Your task to perform on an android device: Open Youtube and go to the subscriptions tab Image 0: 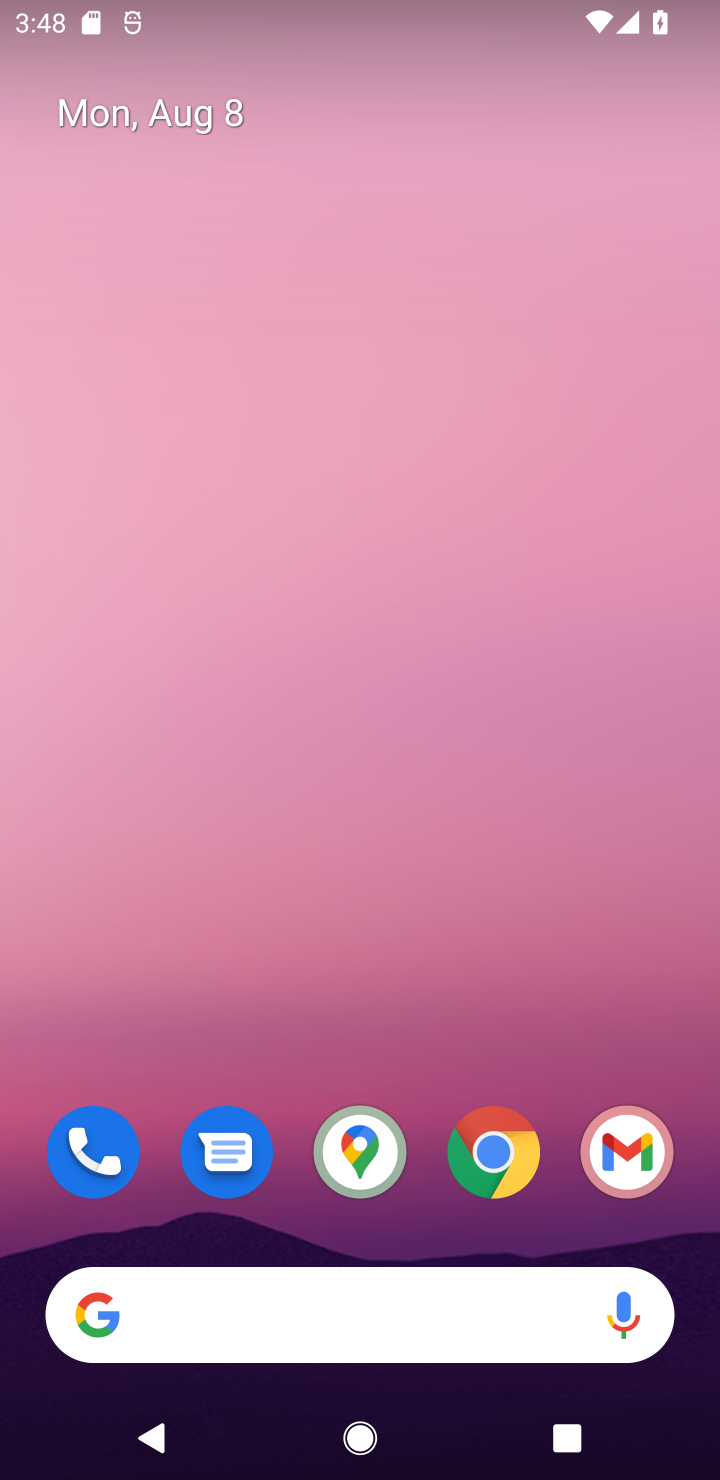
Step 0: drag from (378, 1177) to (670, 20)
Your task to perform on an android device: Open Youtube and go to the subscriptions tab Image 1: 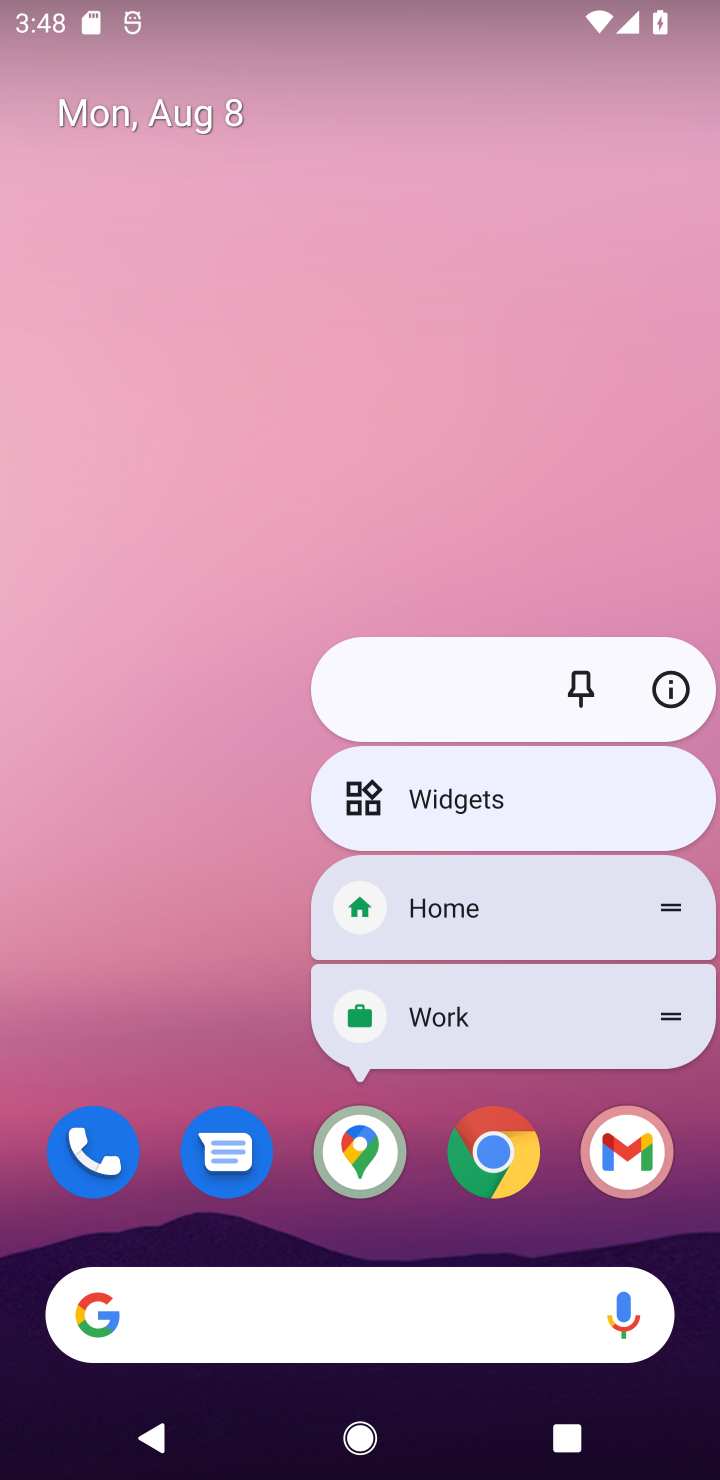
Step 1: click (209, 747)
Your task to perform on an android device: Open Youtube and go to the subscriptions tab Image 2: 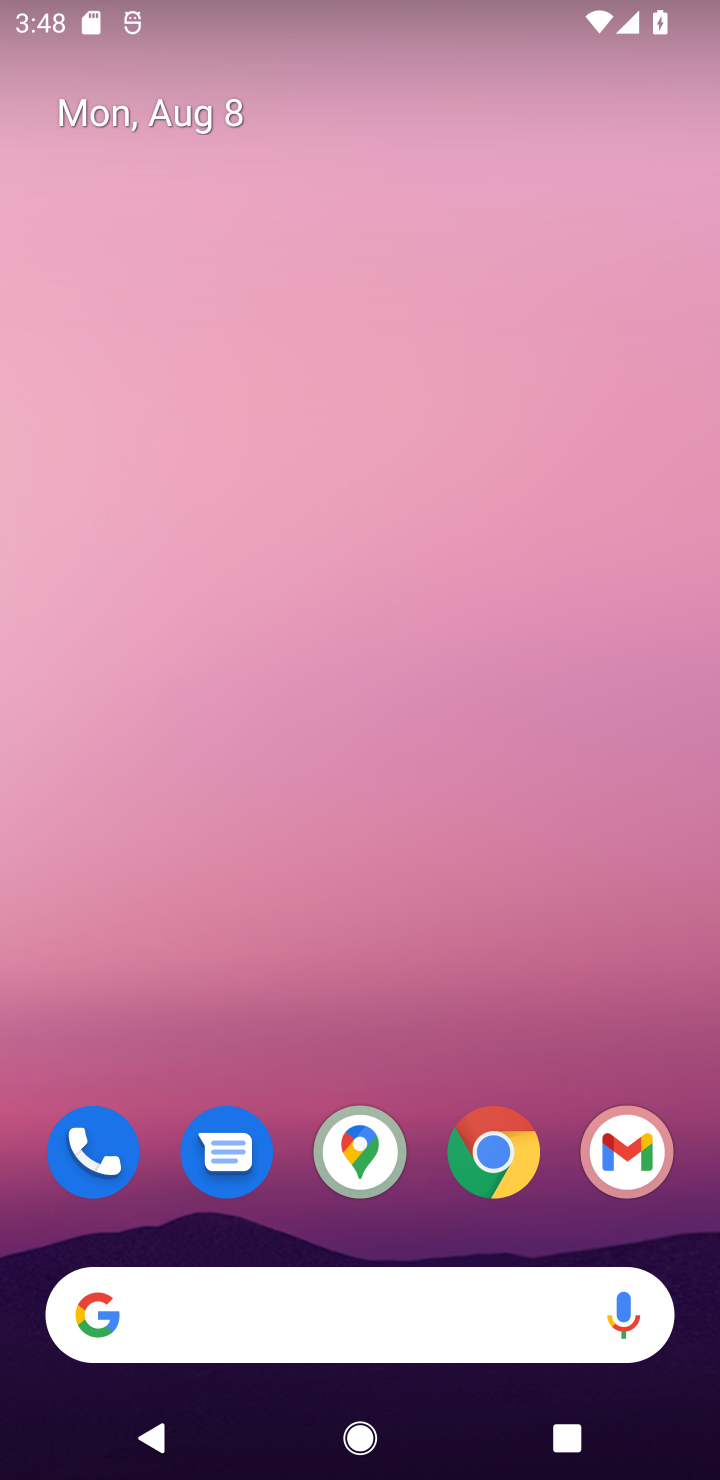
Step 2: drag from (205, 1119) to (391, 95)
Your task to perform on an android device: Open Youtube and go to the subscriptions tab Image 3: 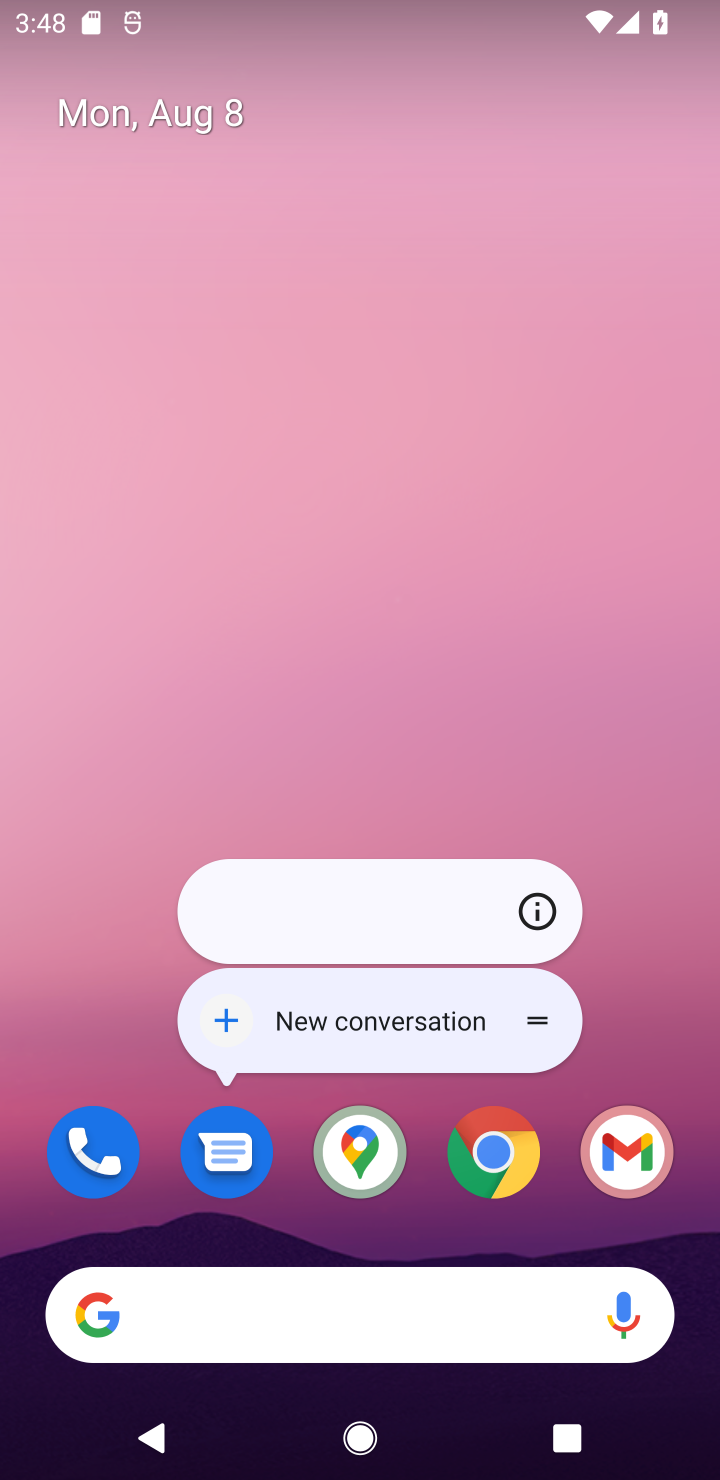
Step 3: drag from (127, 766) to (257, 32)
Your task to perform on an android device: Open Youtube and go to the subscriptions tab Image 4: 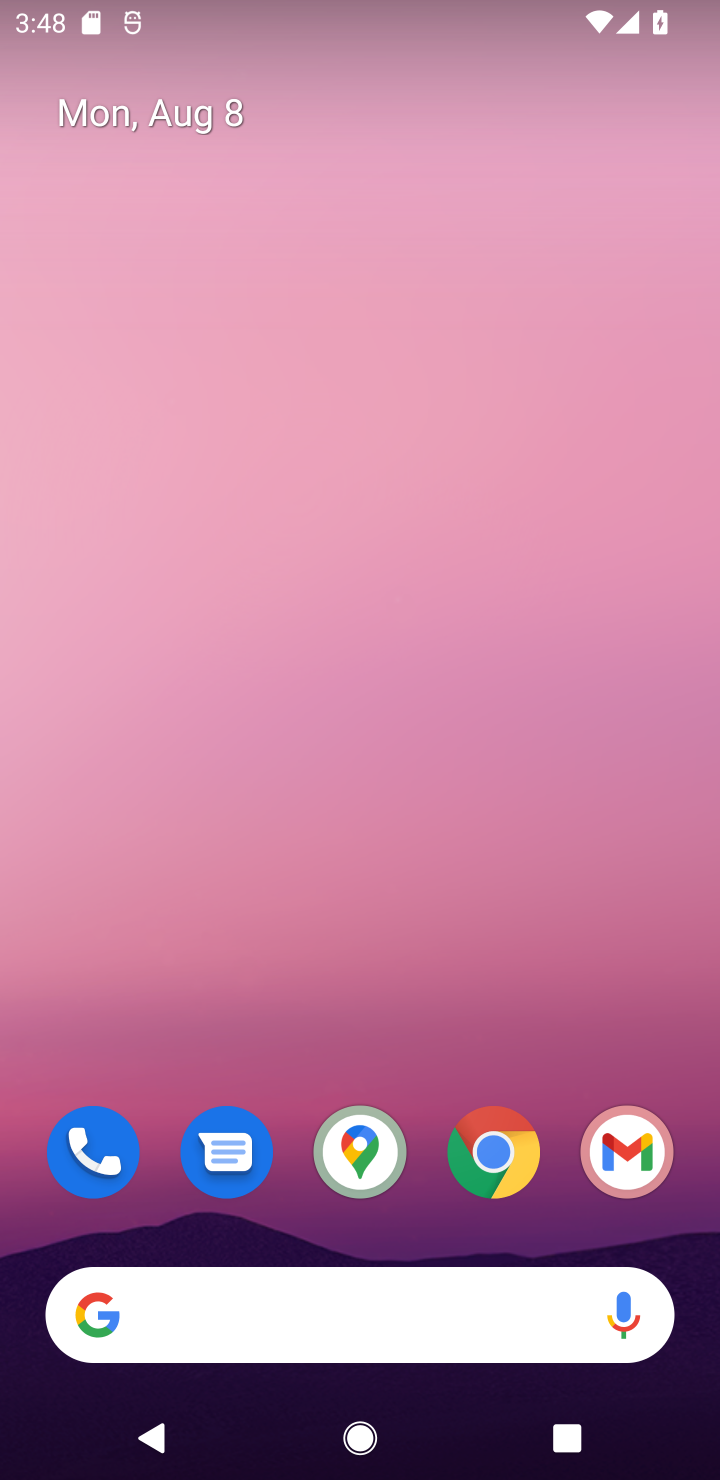
Step 4: drag from (412, 1196) to (381, 201)
Your task to perform on an android device: Open Youtube and go to the subscriptions tab Image 5: 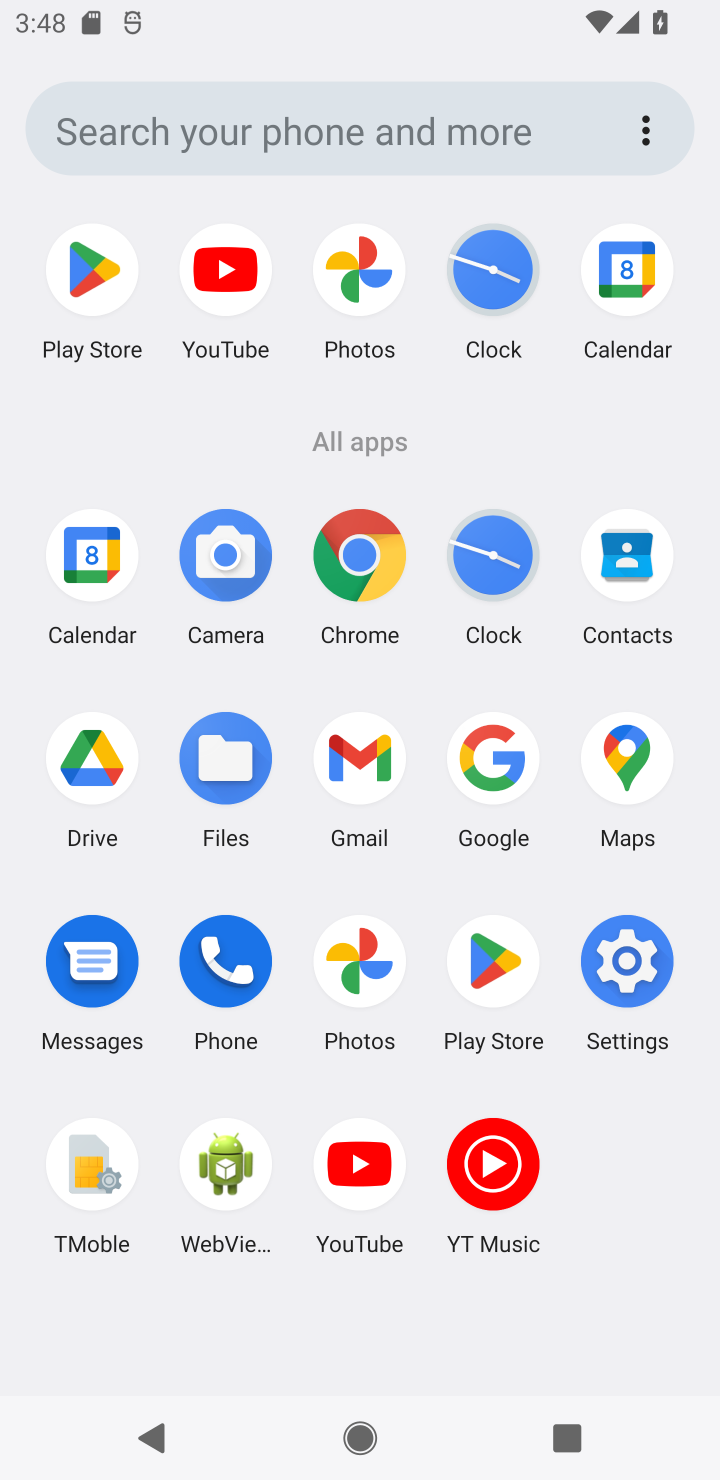
Step 5: click (353, 1182)
Your task to perform on an android device: Open Youtube and go to the subscriptions tab Image 6: 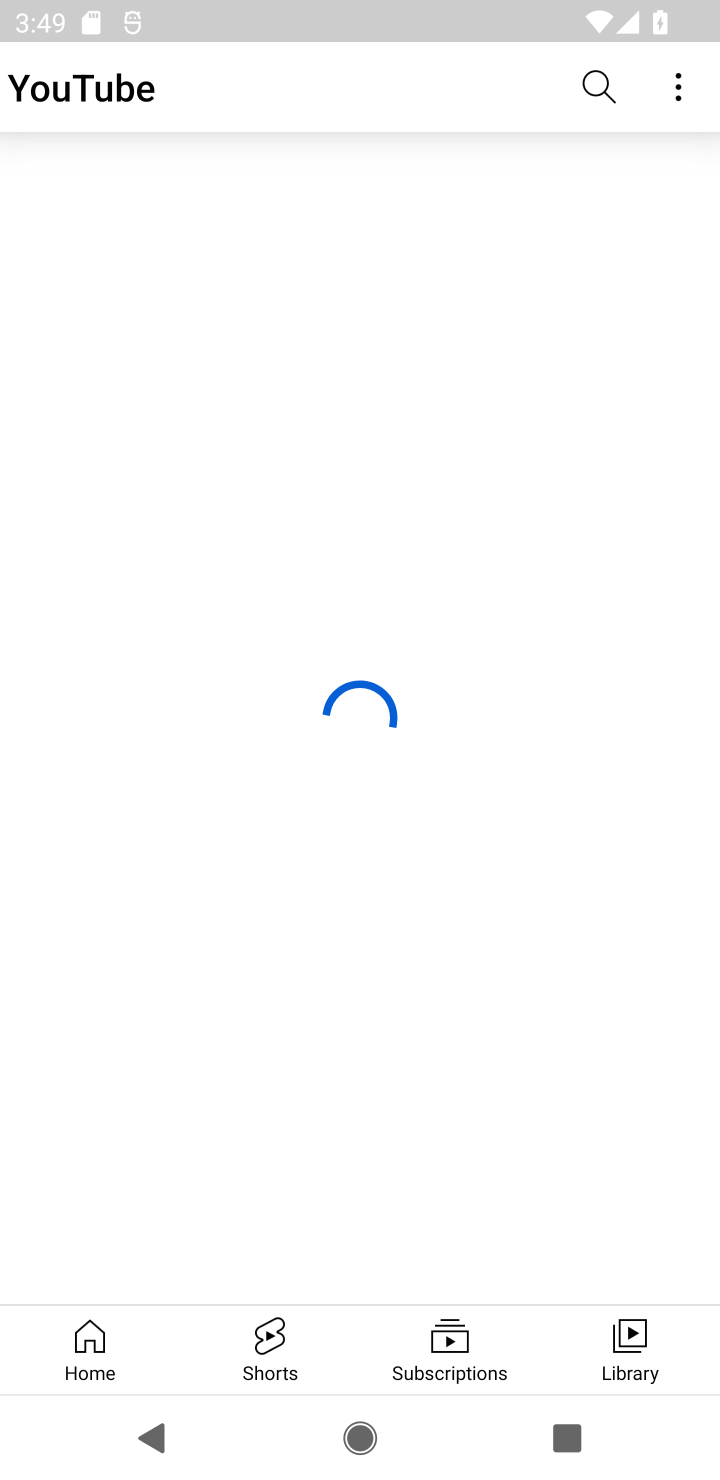
Step 6: click (452, 1352)
Your task to perform on an android device: Open Youtube and go to the subscriptions tab Image 7: 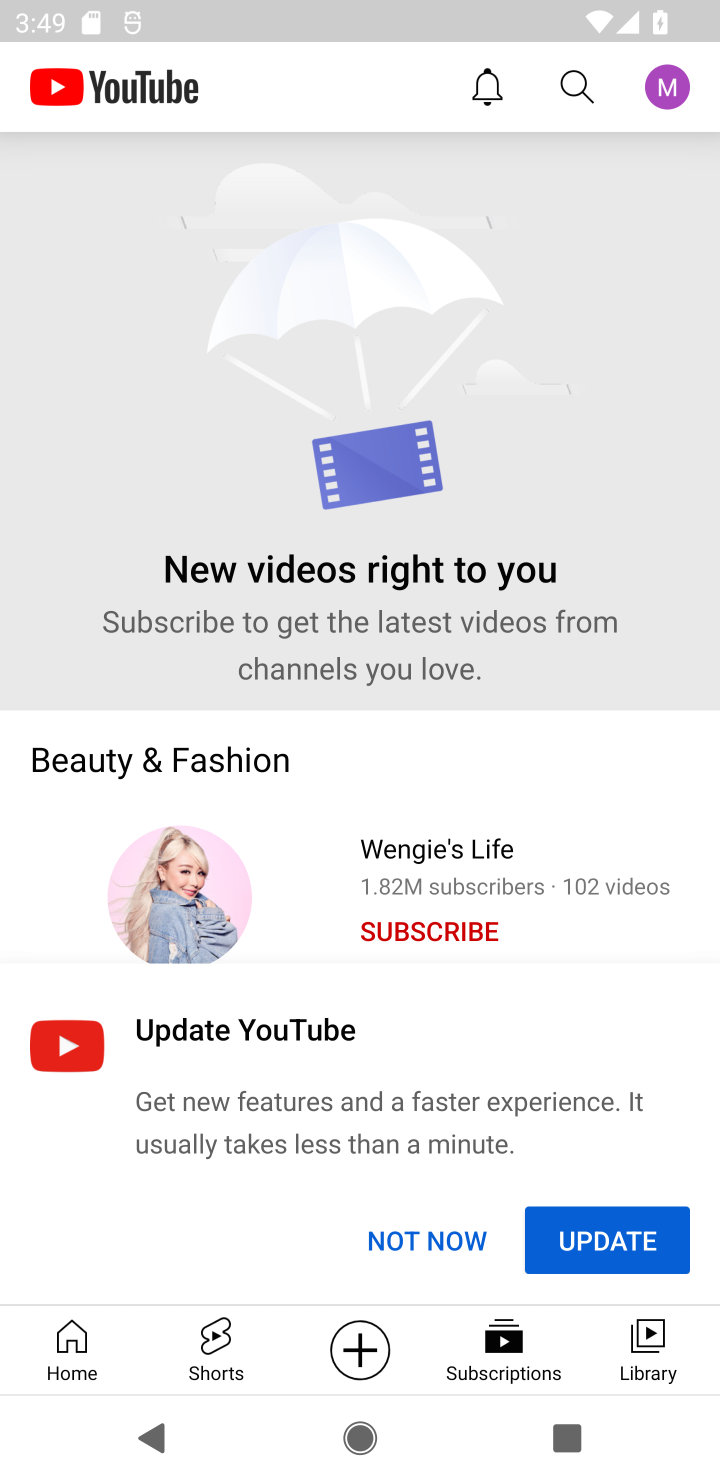
Step 7: task complete